Your task to perform on an android device: turn on wifi Image 0: 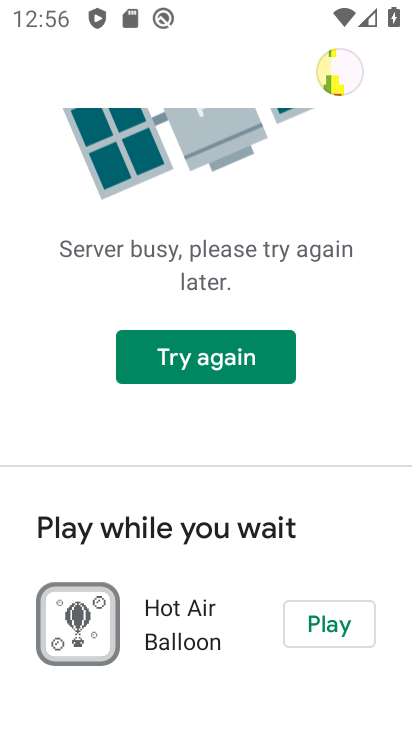
Step 0: drag from (241, 579) to (292, 291)
Your task to perform on an android device: turn on wifi Image 1: 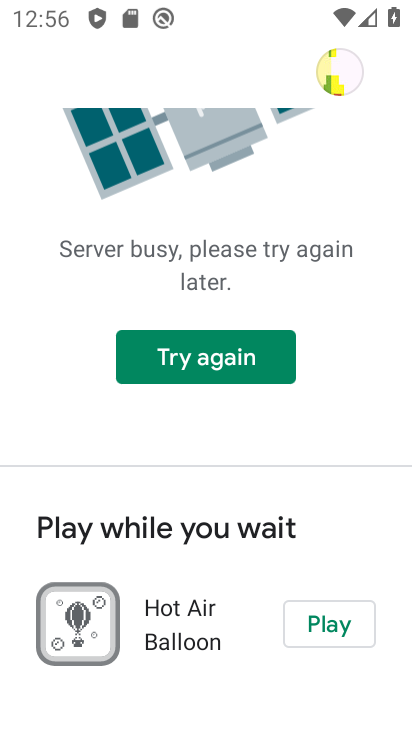
Step 1: drag from (238, 562) to (325, 257)
Your task to perform on an android device: turn on wifi Image 2: 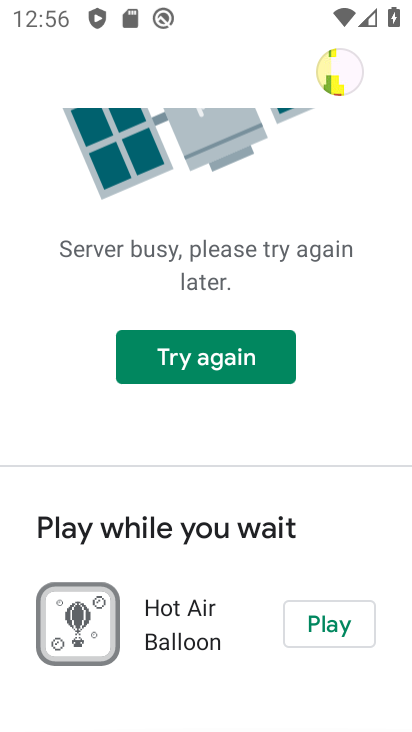
Step 2: drag from (278, 204) to (234, 668)
Your task to perform on an android device: turn on wifi Image 3: 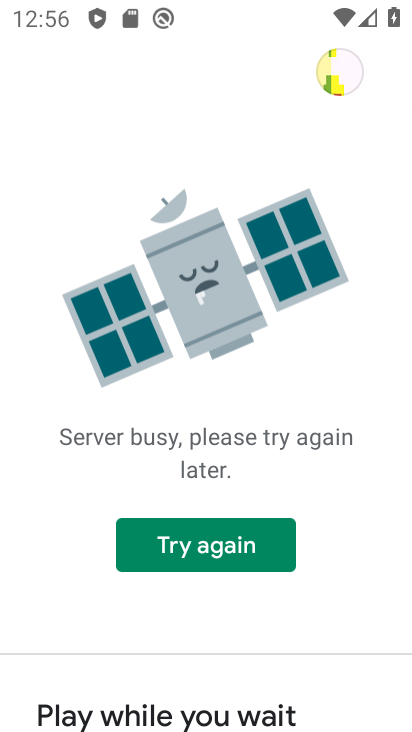
Step 3: drag from (268, 349) to (287, 641)
Your task to perform on an android device: turn on wifi Image 4: 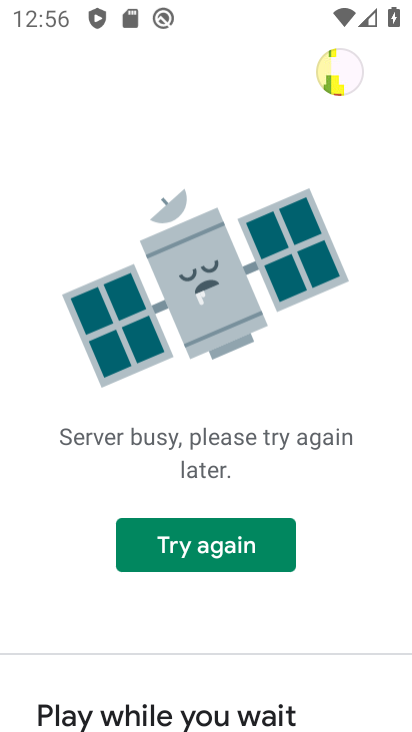
Step 4: drag from (190, 374) to (237, 723)
Your task to perform on an android device: turn on wifi Image 5: 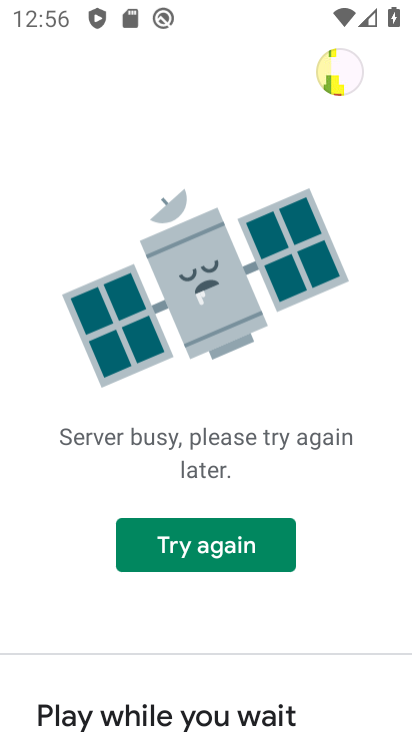
Step 5: press home button
Your task to perform on an android device: turn on wifi Image 6: 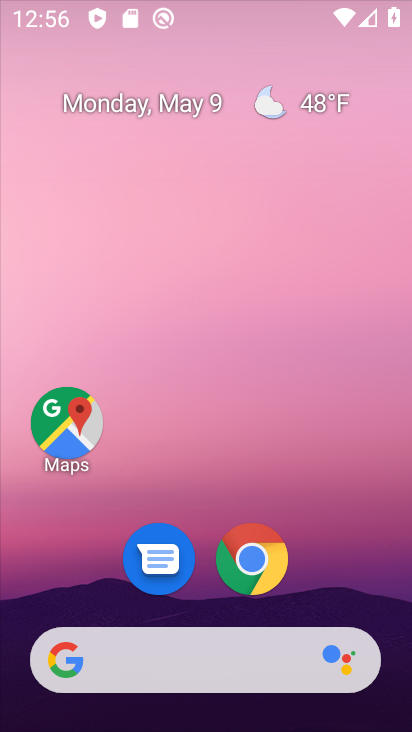
Step 6: drag from (217, 630) to (321, 143)
Your task to perform on an android device: turn on wifi Image 7: 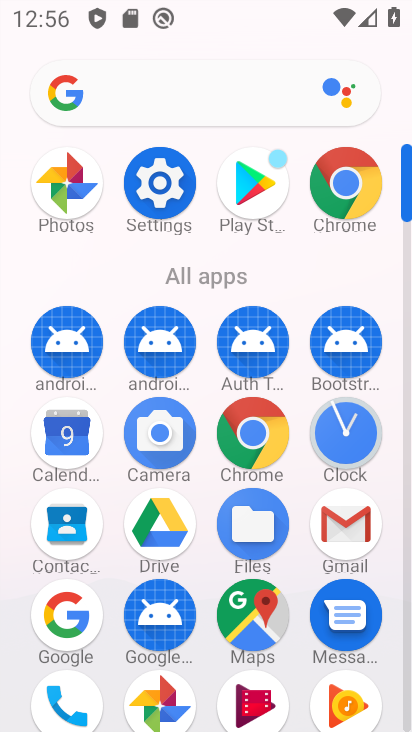
Step 7: click (157, 204)
Your task to perform on an android device: turn on wifi Image 8: 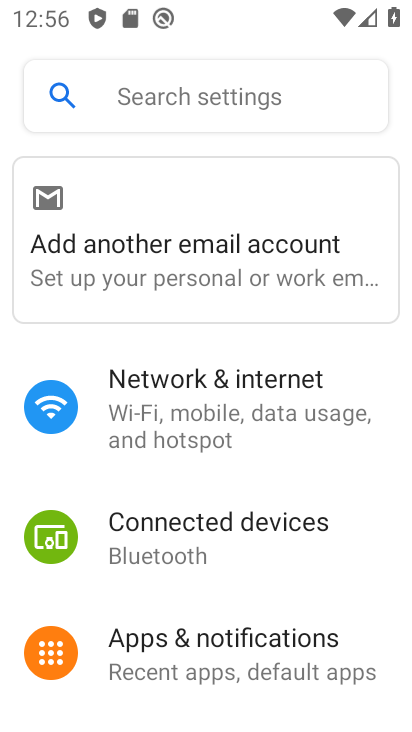
Step 8: click (197, 384)
Your task to perform on an android device: turn on wifi Image 9: 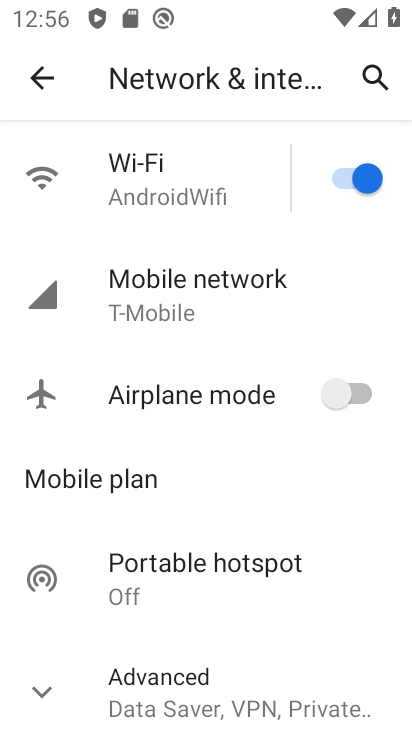
Step 9: click (185, 184)
Your task to perform on an android device: turn on wifi Image 10: 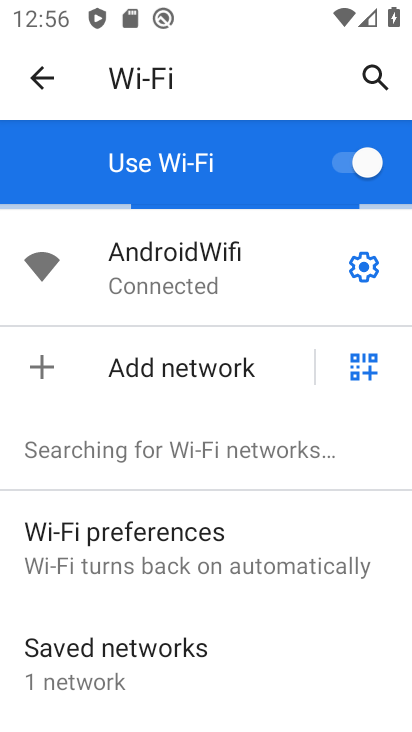
Step 10: task complete